Your task to perform on an android device: toggle airplane mode Image 0: 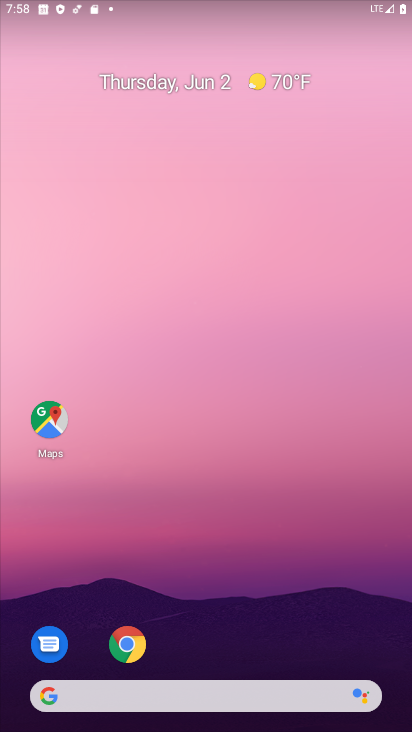
Step 0: drag from (246, 572) to (170, 19)
Your task to perform on an android device: toggle airplane mode Image 1: 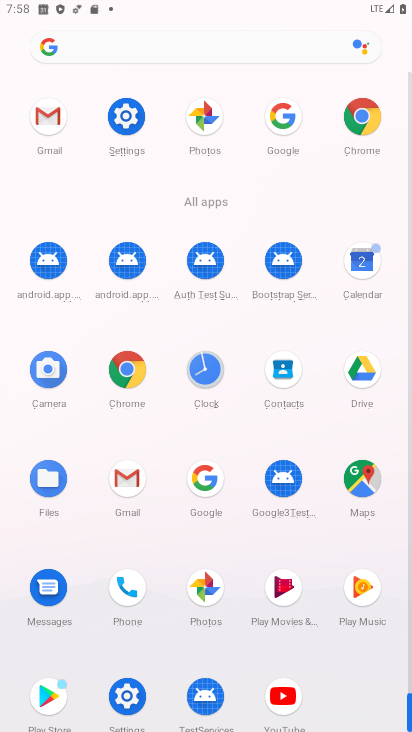
Step 1: click (124, 695)
Your task to perform on an android device: toggle airplane mode Image 2: 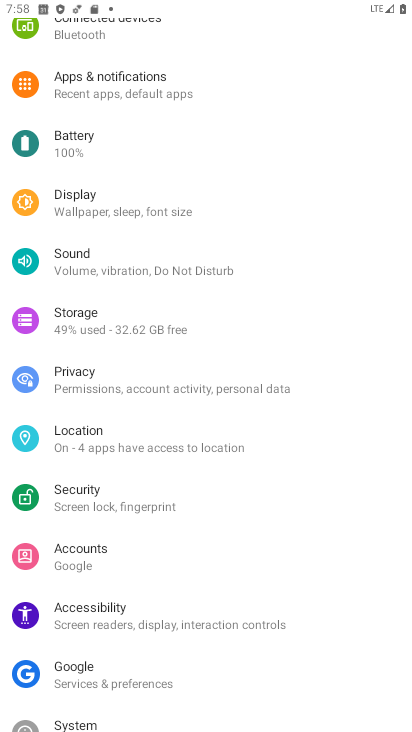
Step 2: drag from (217, 159) to (232, 596)
Your task to perform on an android device: toggle airplane mode Image 3: 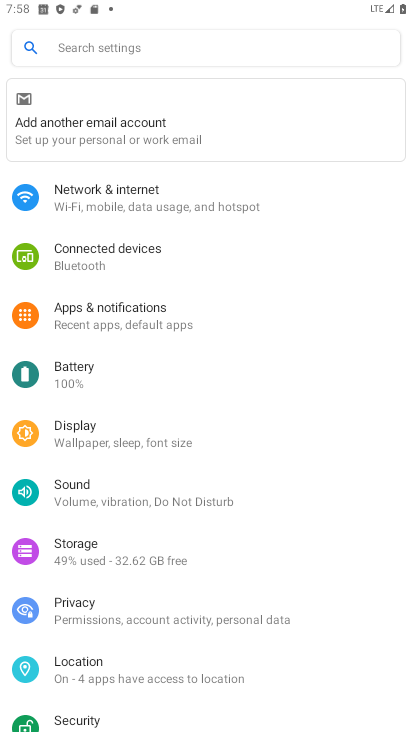
Step 3: click (157, 181)
Your task to perform on an android device: toggle airplane mode Image 4: 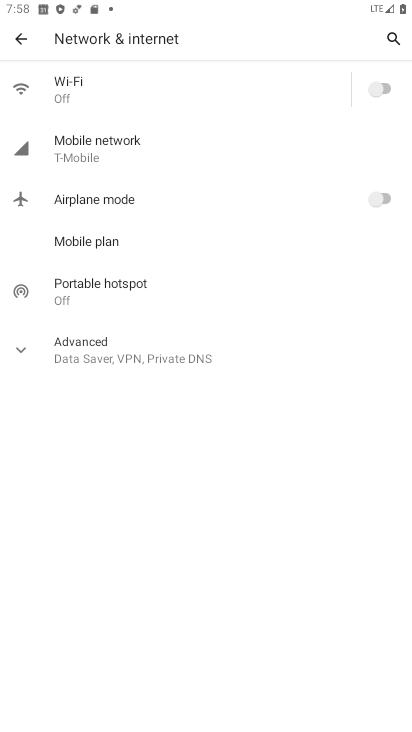
Step 4: click (377, 193)
Your task to perform on an android device: toggle airplane mode Image 5: 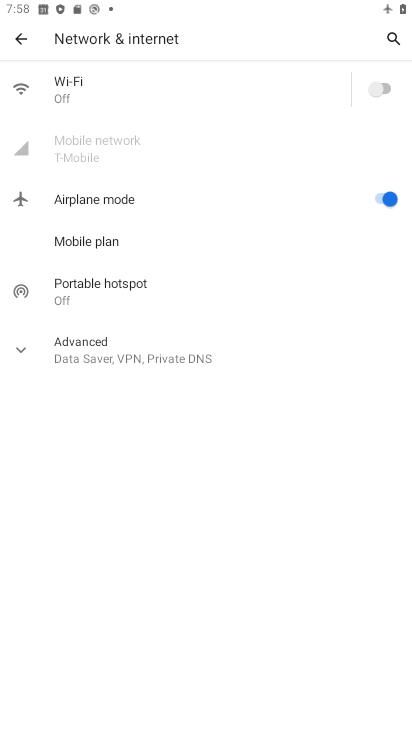
Step 5: click (18, 345)
Your task to perform on an android device: toggle airplane mode Image 6: 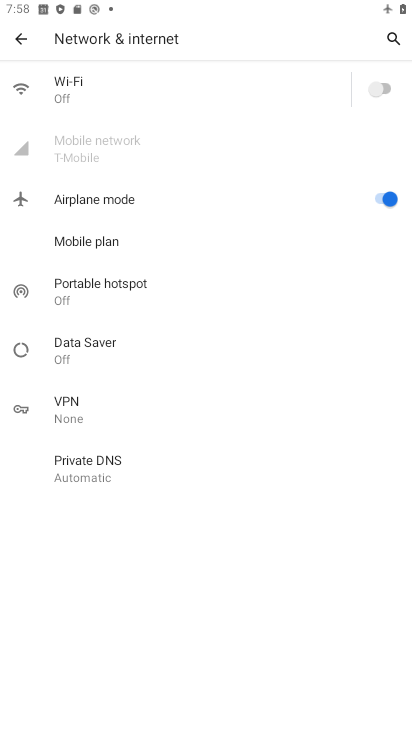
Step 6: task complete